Your task to perform on an android device: Play the last video I watched on Youtube Image 0: 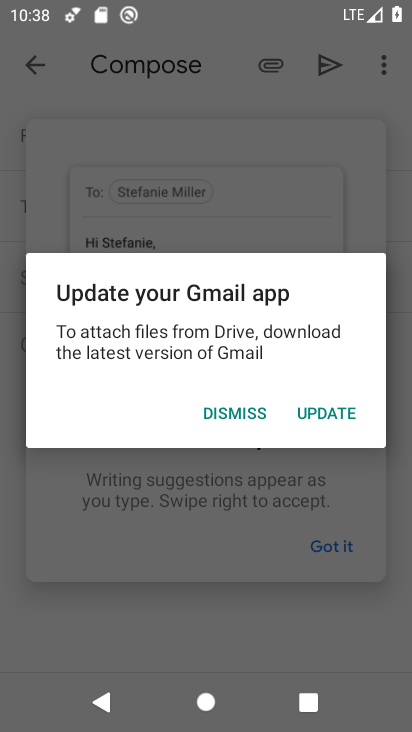
Step 0: press home button
Your task to perform on an android device: Play the last video I watched on Youtube Image 1: 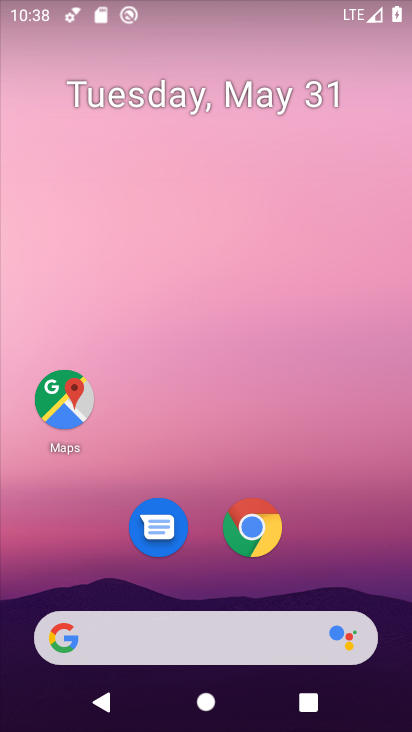
Step 1: drag from (334, 596) to (350, 4)
Your task to perform on an android device: Play the last video I watched on Youtube Image 2: 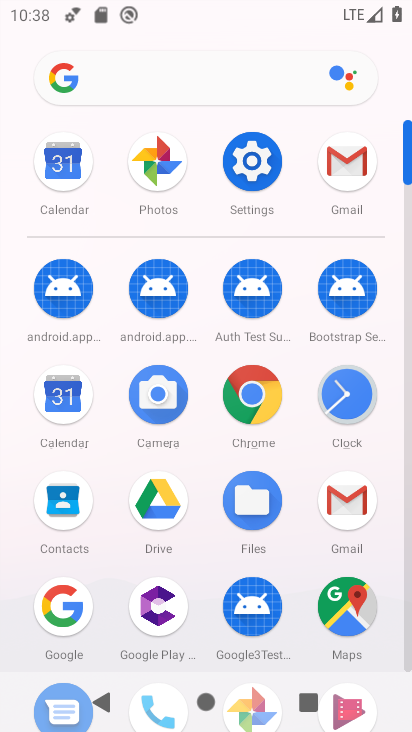
Step 2: drag from (407, 525) to (410, 472)
Your task to perform on an android device: Play the last video I watched on Youtube Image 3: 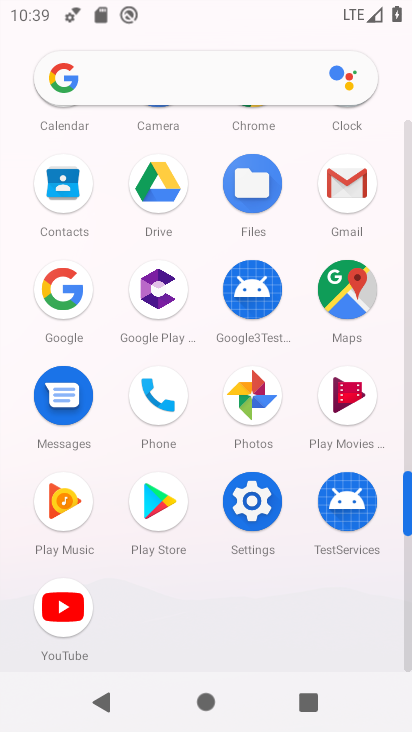
Step 3: click (45, 616)
Your task to perform on an android device: Play the last video I watched on Youtube Image 4: 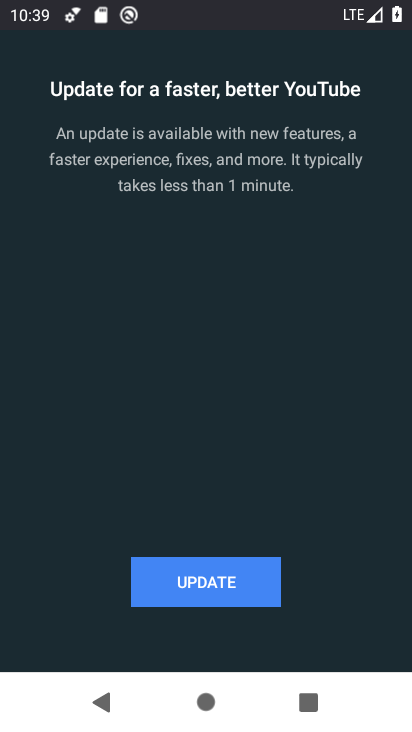
Step 4: click (190, 590)
Your task to perform on an android device: Play the last video I watched on Youtube Image 5: 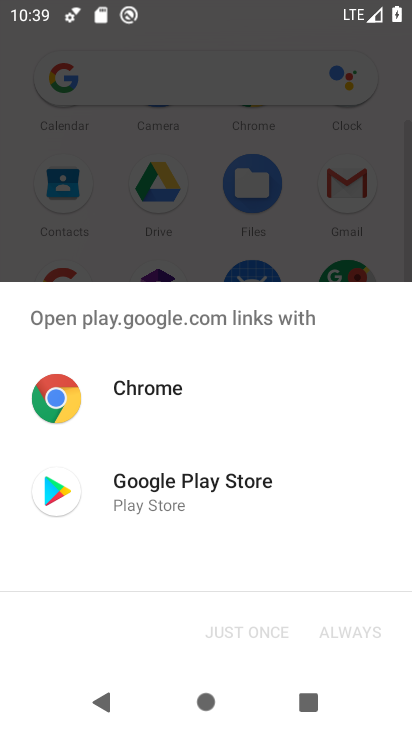
Step 5: click (153, 497)
Your task to perform on an android device: Play the last video I watched on Youtube Image 6: 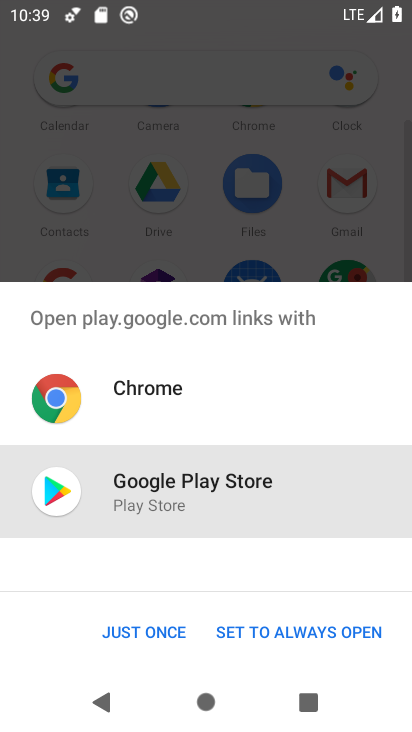
Step 6: click (152, 636)
Your task to perform on an android device: Play the last video I watched on Youtube Image 7: 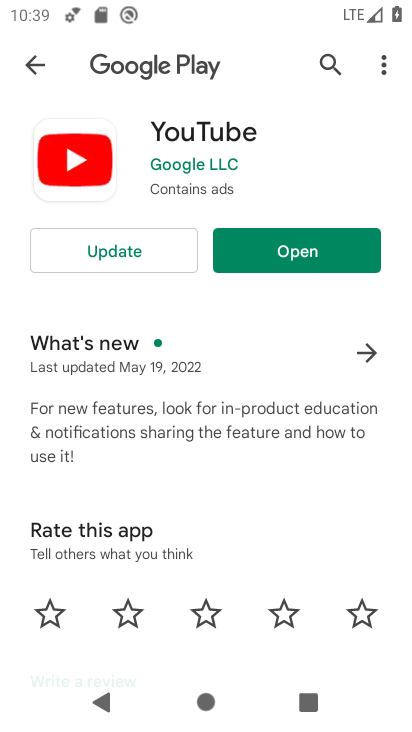
Step 7: click (126, 257)
Your task to perform on an android device: Play the last video I watched on Youtube Image 8: 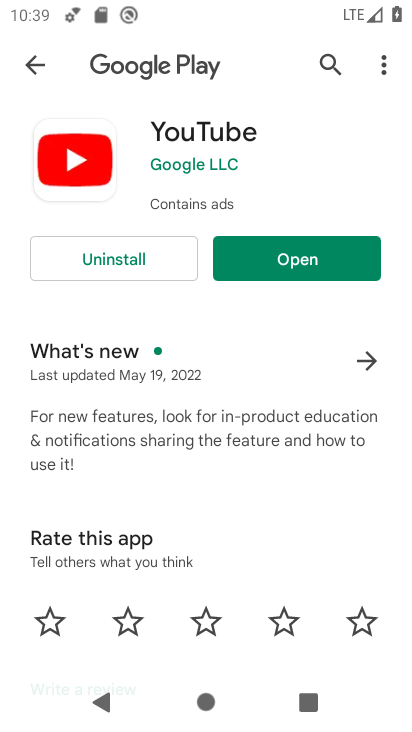
Step 8: click (265, 256)
Your task to perform on an android device: Play the last video I watched on Youtube Image 9: 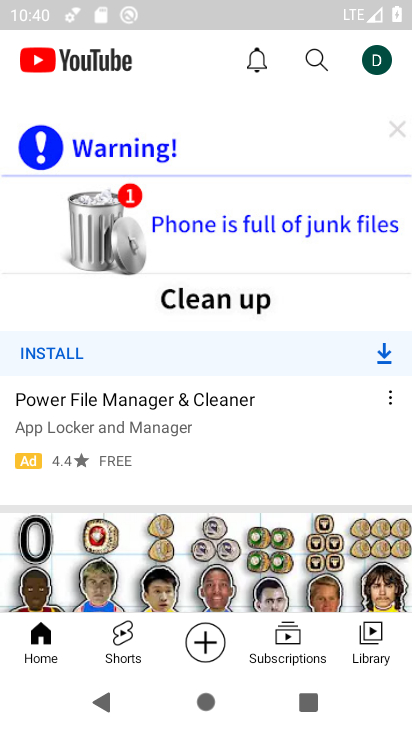
Step 9: click (369, 649)
Your task to perform on an android device: Play the last video I watched on Youtube Image 10: 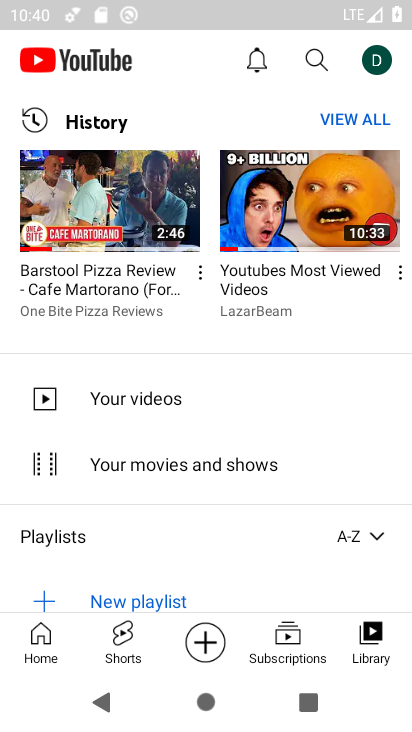
Step 10: click (93, 229)
Your task to perform on an android device: Play the last video I watched on Youtube Image 11: 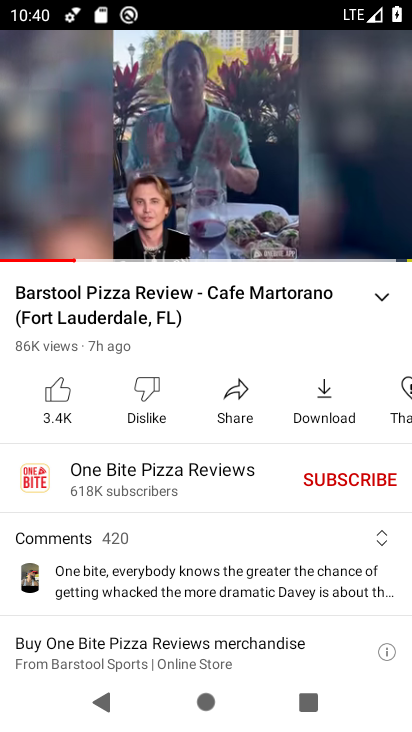
Step 11: click (219, 160)
Your task to perform on an android device: Play the last video I watched on Youtube Image 12: 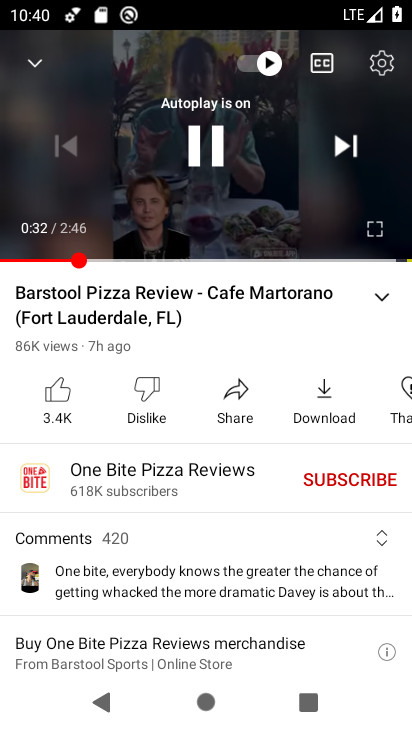
Step 12: click (217, 161)
Your task to perform on an android device: Play the last video I watched on Youtube Image 13: 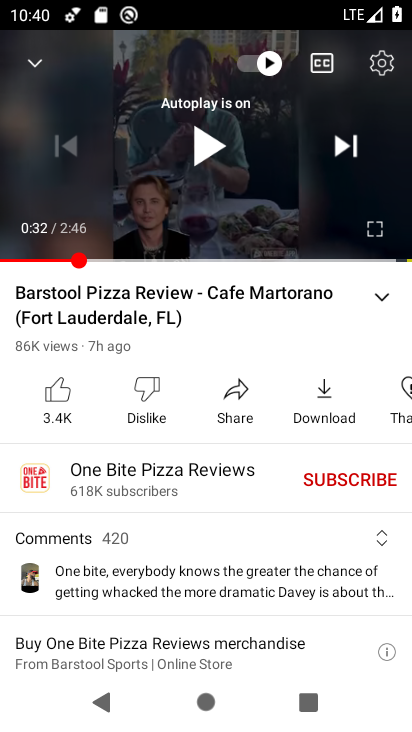
Step 13: task complete